Your task to perform on an android device: turn on the 12-hour format for clock Image 0: 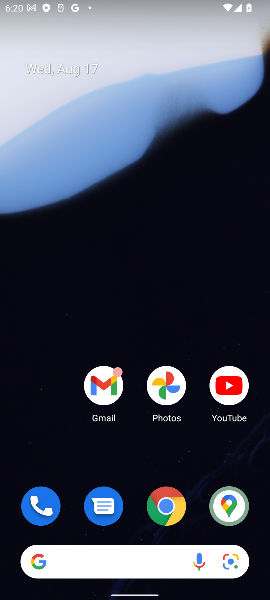
Step 0: drag from (139, 451) to (144, 67)
Your task to perform on an android device: turn on the 12-hour format for clock Image 1: 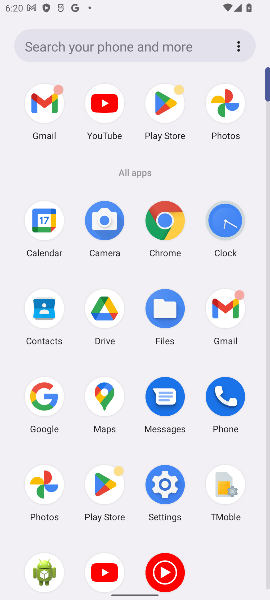
Step 1: click (230, 222)
Your task to perform on an android device: turn on the 12-hour format for clock Image 2: 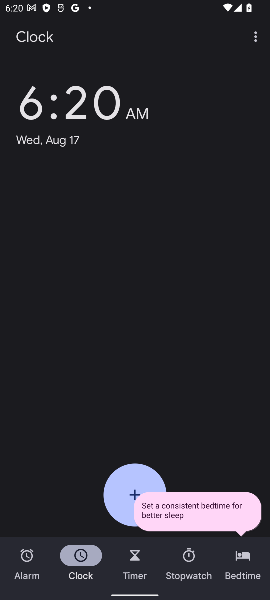
Step 2: click (255, 43)
Your task to perform on an android device: turn on the 12-hour format for clock Image 3: 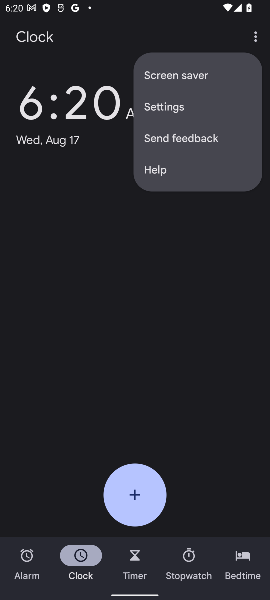
Step 3: click (179, 115)
Your task to perform on an android device: turn on the 12-hour format for clock Image 4: 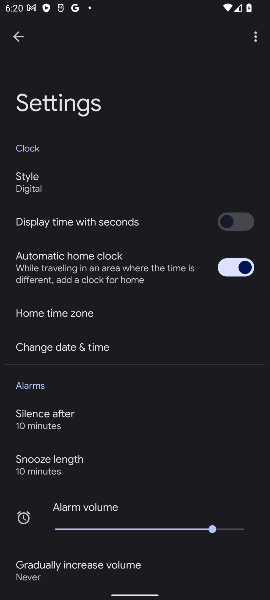
Step 4: click (108, 352)
Your task to perform on an android device: turn on the 12-hour format for clock Image 5: 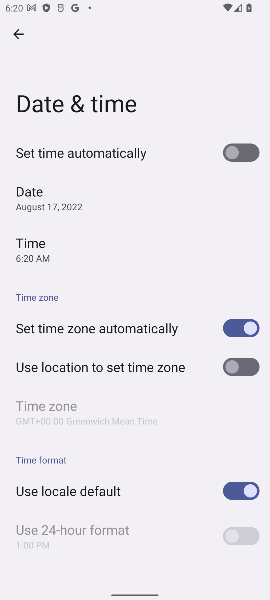
Step 5: task complete